Your task to perform on an android device: Search for pizza restaurants on Maps Image 0: 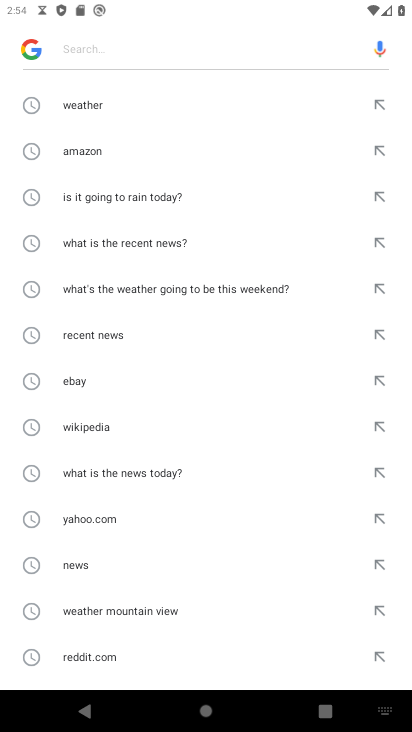
Step 0: press home button
Your task to perform on an android device: Search for pizza restaurants on Maps Image 1: 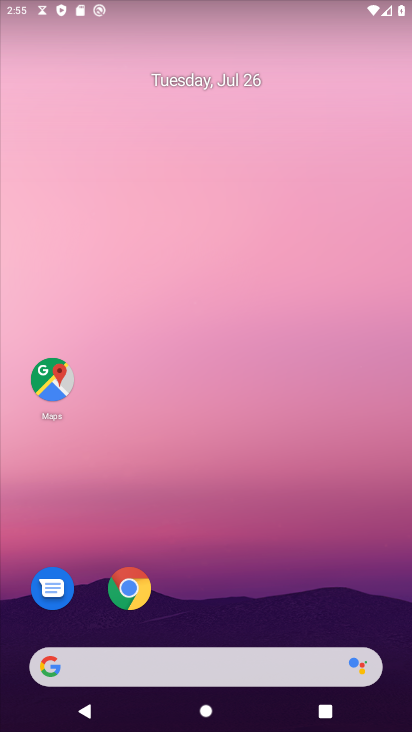
Step 1: drag from (281, 602) to (312, 128)
Your task to perform on an android device: Search for pizza restaurants on Maps Image 2: 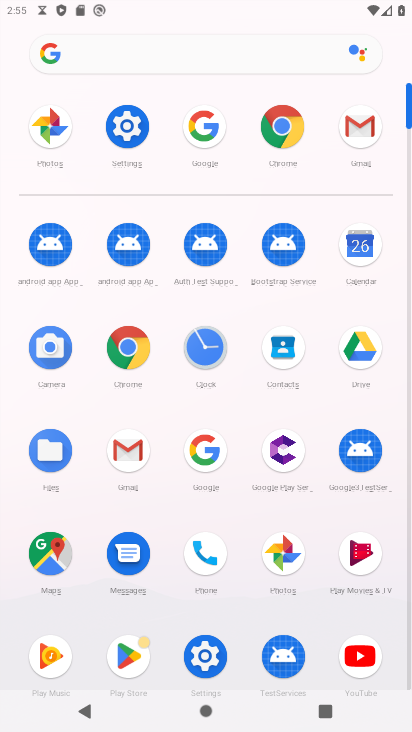
Step 2: click (60, 562)
Your task to perform on an android device: Search for pizza restaurants on Maps Image 3: 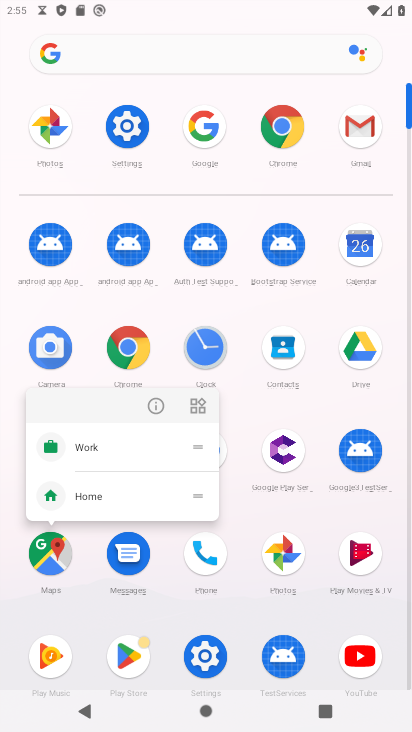
Step 3: click (65, 558)
Your task to perform on an android device: Search for pizza restaurants on Maps Image 4: 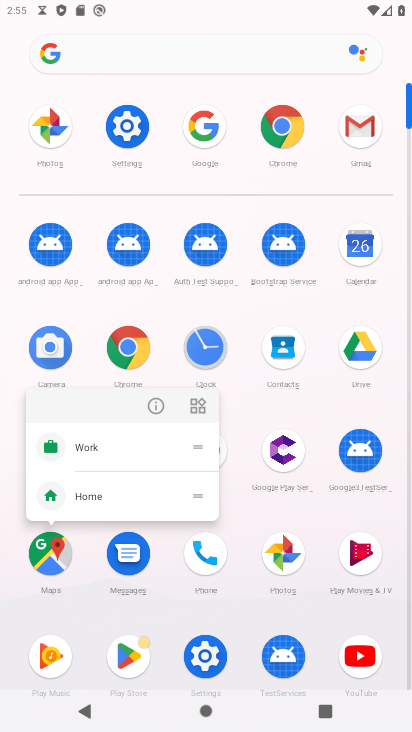
Step 4: click (61, 554)
Your task to perform on an android device: Search for pizza restaurants on Maps Image 5: 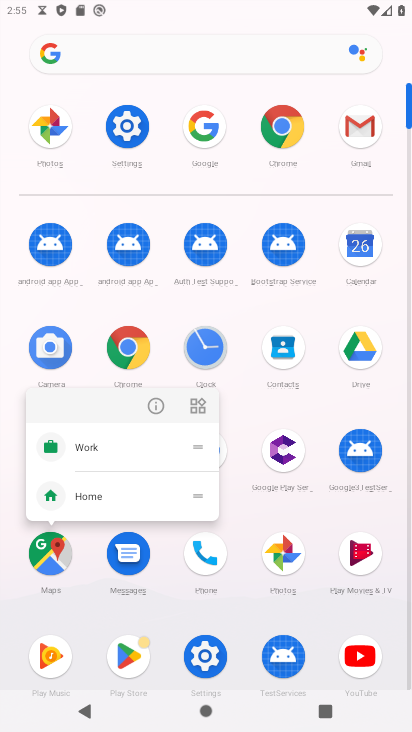
Step 5: click (61, 550)
Your task to perform on an android device: Search for pizza restaurants on Maps Image 6: 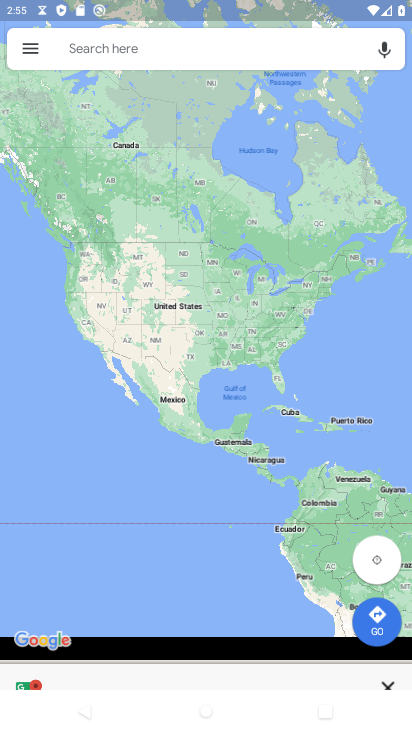
Step 6: click (160, 31)
Your task to perform on an android device: Search for pizza restaurants on Maps Image 7: 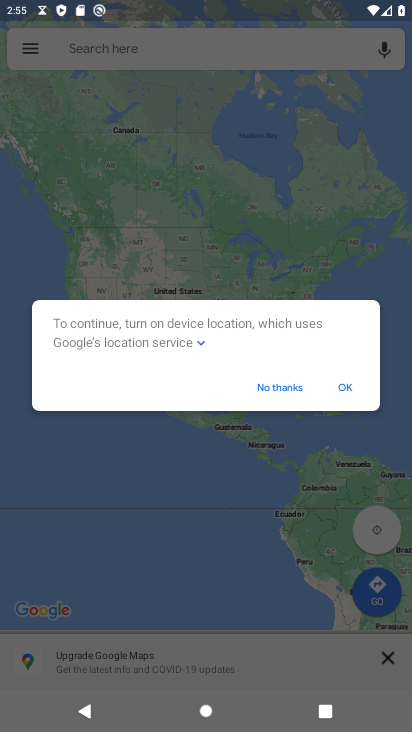
Step 7: click (288, 381)
Your task to perform on an android device: Search for pizza restaurants on Maps Image 8: 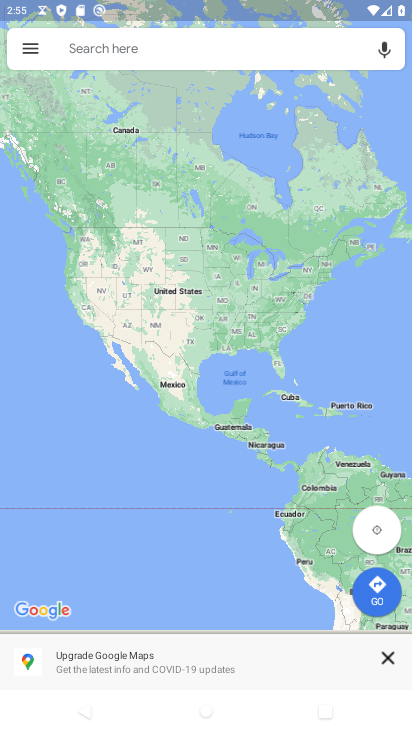
Step 8: click (212, 35)
Your task to perform on an android device: Search for pizza restaurants on Maps Image 9: 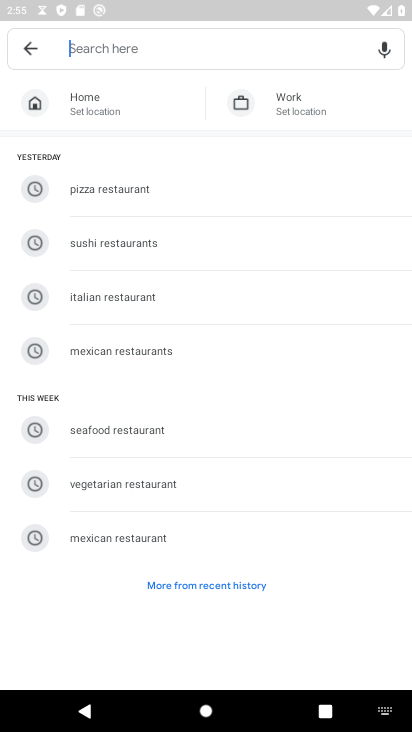
Step 9: click (119, 193)
Your task to perform on an android device: Search for pizza restaurants on Maps Image 10: 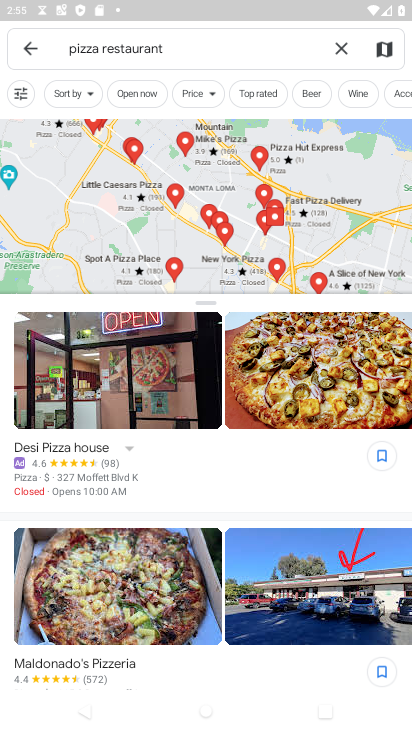
Step 10: task complete